Your task to perform on an android device: Is it going to rain today? Image 0: 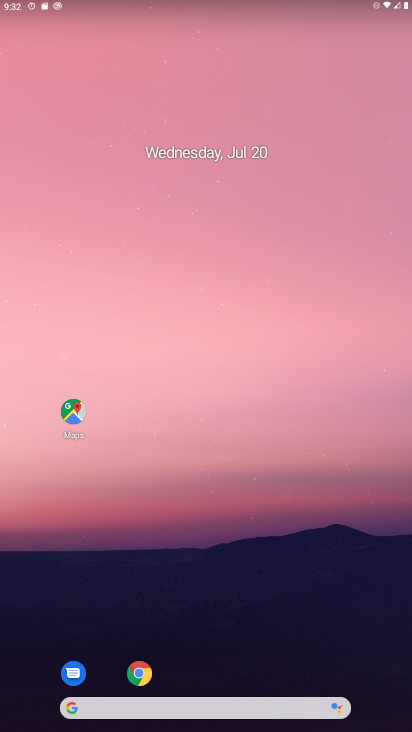
Step 0: drag from (356, 632) to (247, 79)
Your task to perform on an android device: Is it going to rain today? Image 1: 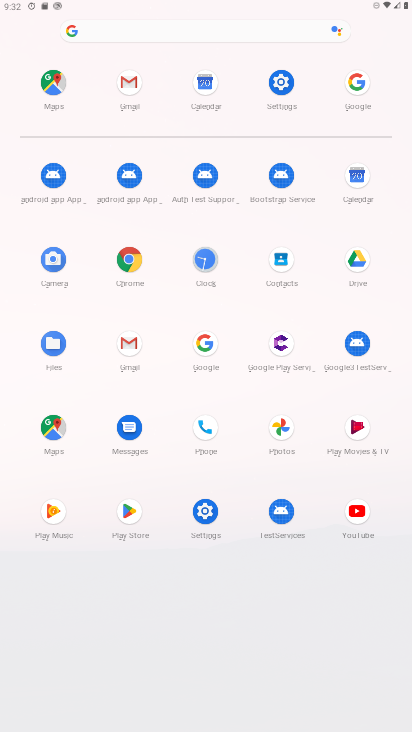
Step 1: click (197, 349)
Your task to perform on an android device: Is it going to rain today? Image 2: 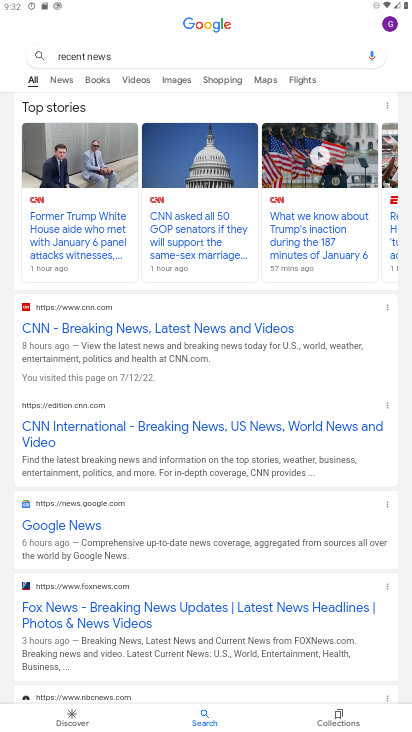
Step 2: press back button
Your task to perform on an android device: Is it going to rain today? Image 3: 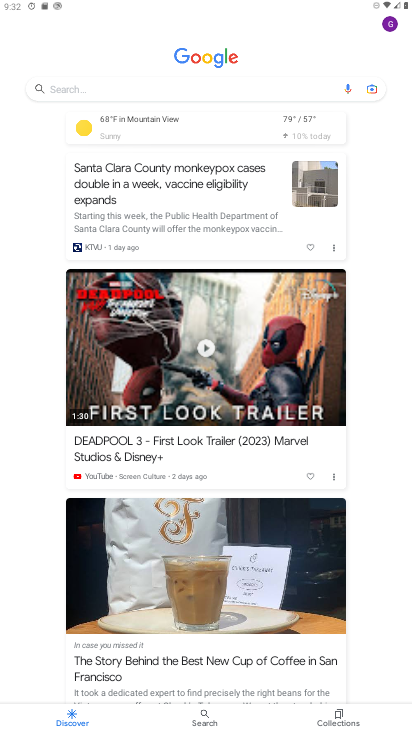
Step 3: click (75, 84)
Your task to perform on an android device: Is it going to rain today? Image 4: 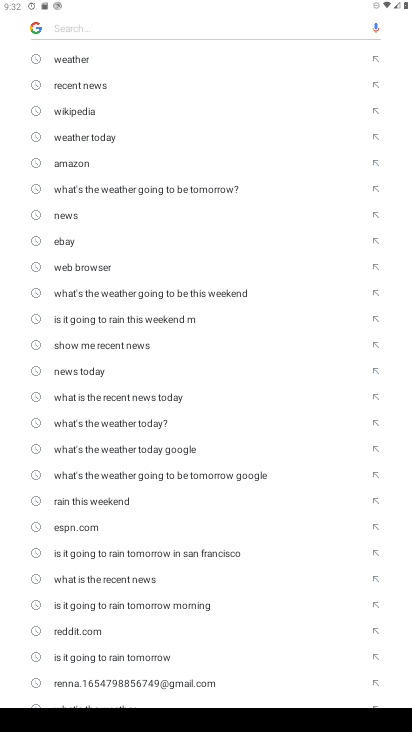
Step 4: drag from (108, 635) to (148, 277)
Your task to perform on an android device: Is it going to rain today? Image 5: 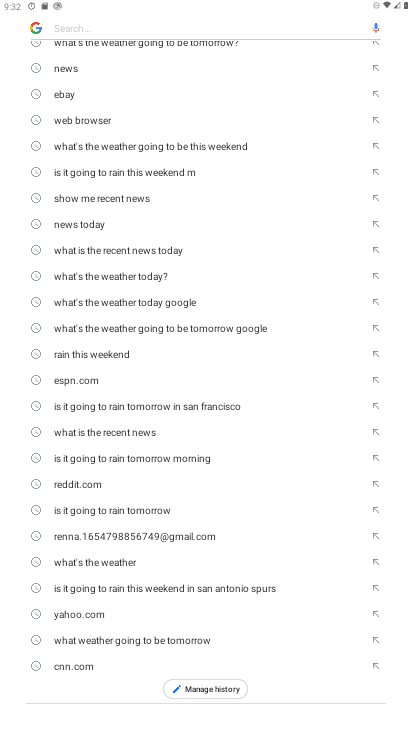
Step 5: type "Is it going to rain today?"
Your task to perform on an android device: Is it going to rain today? Image 6: 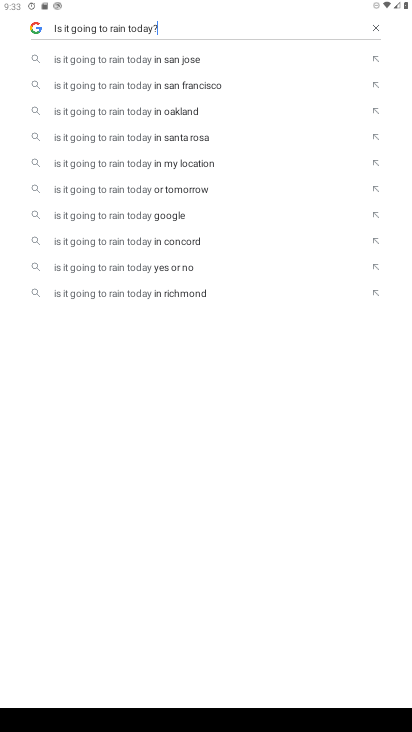
Step 6: click (166, 218)
Your task to perform on an android device: Is it going to rain today? Image 7: 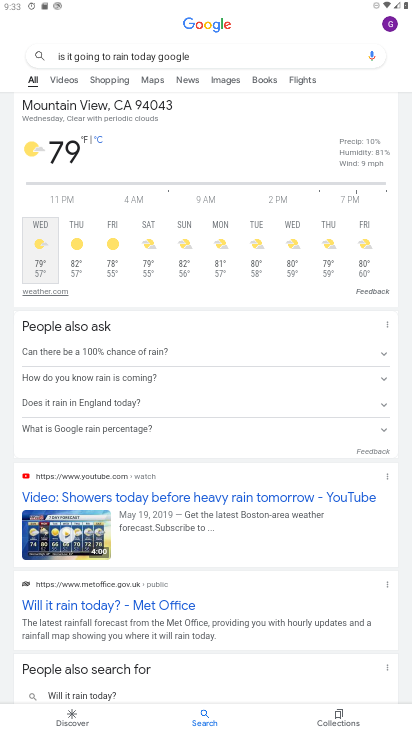
Step 7: task complete